Your task to perform on an android device: turn off priority inbox in the gmail app Image 0: 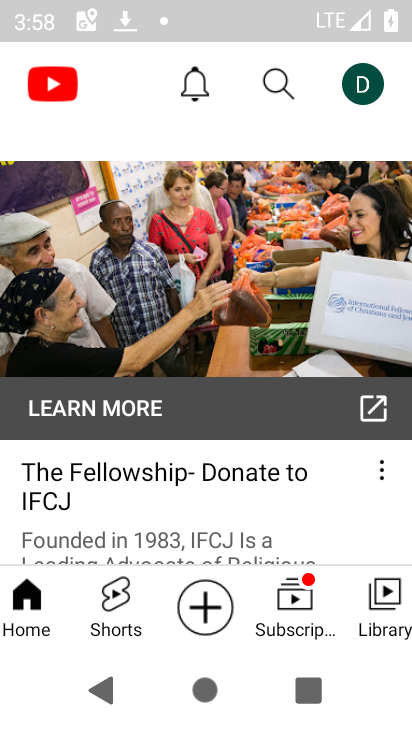
Step 0: drag from (334, 478) to (371, 133)
Your task to perform on an android device: turn off priority inbox in the gmail app Image 1: 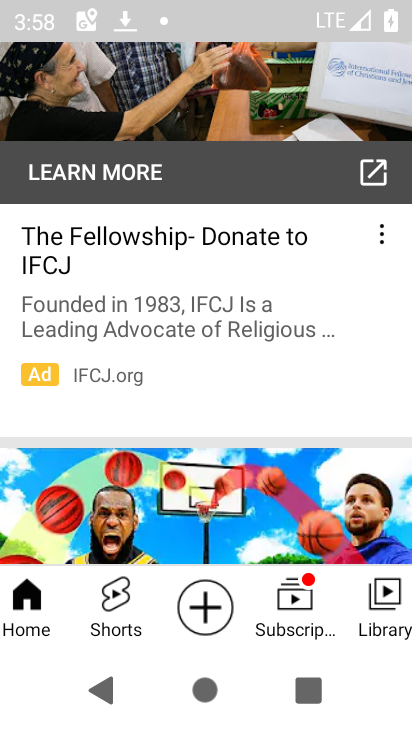
Step 1: drag from (280, 559) to (373, 170)
Your task to perform on an android device: turn off priority inbox in the gmail app Image 2: 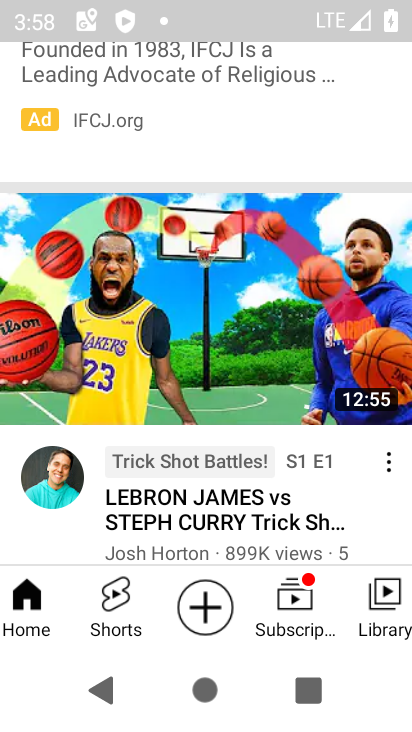
Step 2: drag from (290, 397) to (360, 64)
Your task to perform on an android device: turn off priority inbox in the gmail app Image 3: 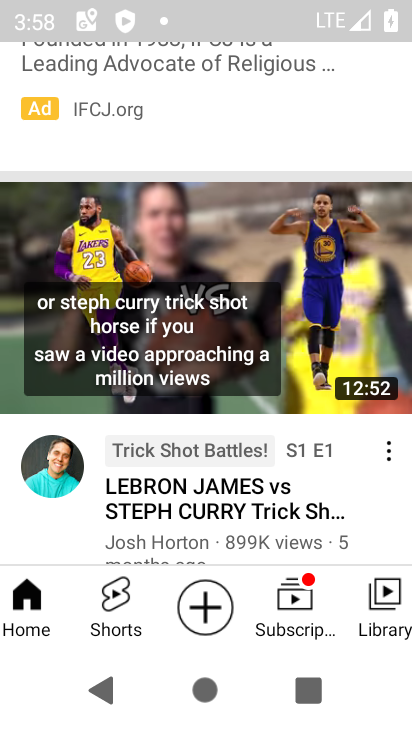
Step 3: press home button
Your task to perform on an android device: turn off priority inbox in the gmail app Image 4: 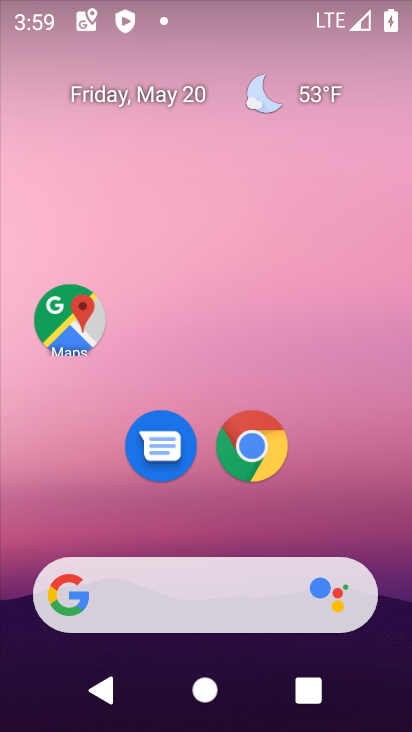
Step 4: drag from (327, 518) to (411, 3)
Your task to perform on an android device: turn off priority inbox in the gmail app Image 5: 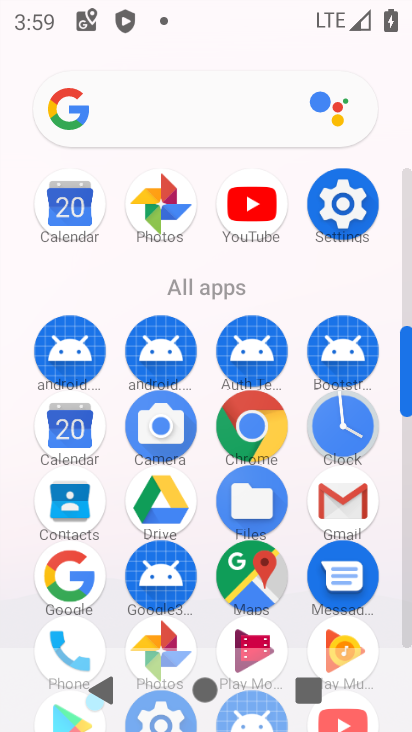
Step 5: click (332, 491)
Your task to perform on an android device: turn off priority inbox in the gmail app Image 6: 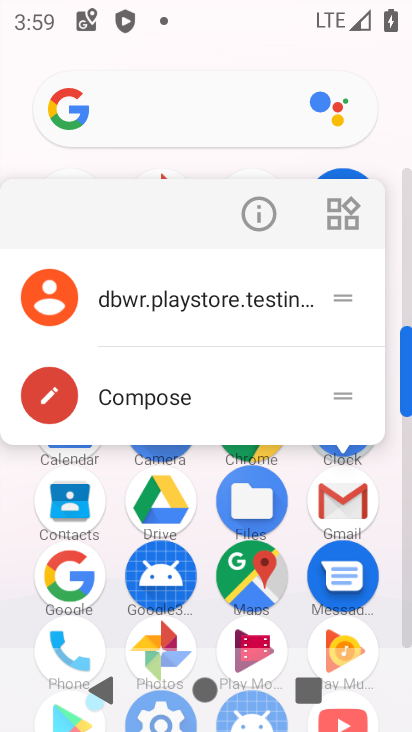
Step 6: click (329, 491)
Your task to perform on an android device: turn off priority inbox in the gmail app Image 7: 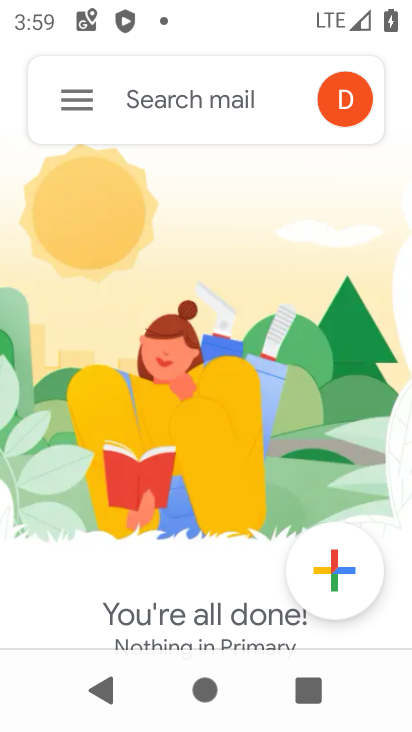
Step 7: click (56, 110)
Your task to perform on an android device: turn off priority inbox in the gmail app Image 8: 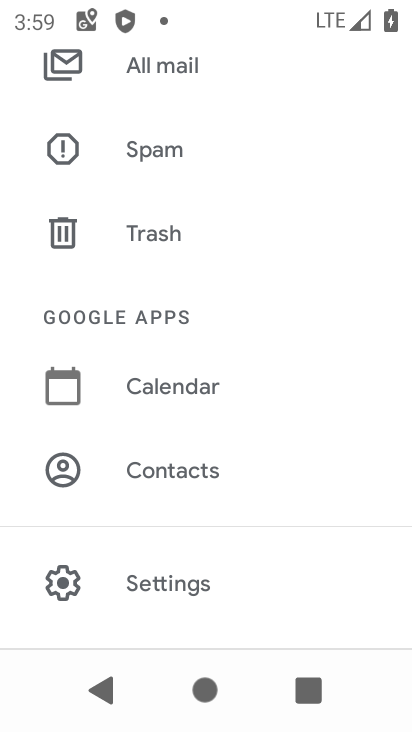
Step 8: click (169, 581)
Your task to perform on an android device: turn off priority inbox in the gmail app Image 9: 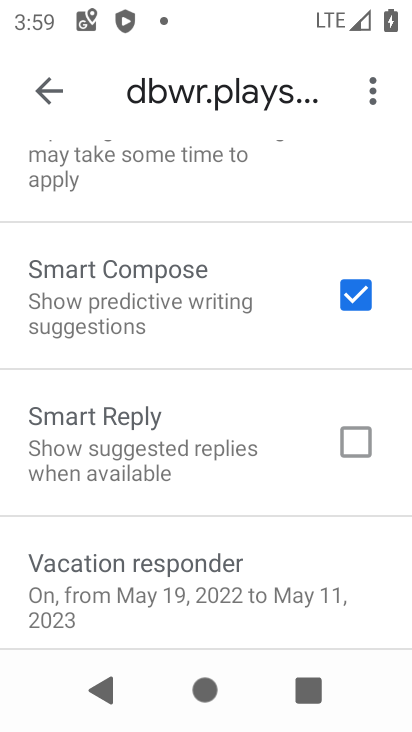
Step 9: drag from (188, 364) to (182, 628)
Your task to perform on an android device: turn off priority inbox in the gmail app Image 10: 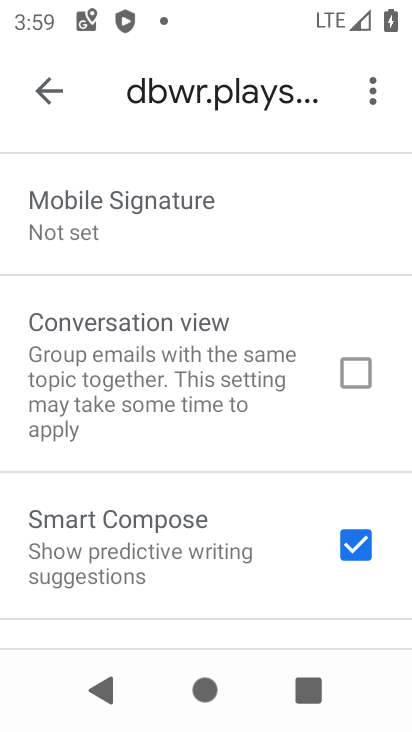
Step 10: drag from (210, 249) to (194, 620)
Your task to perform on an android device: turn off priority inbox in the gmail app Image 11: 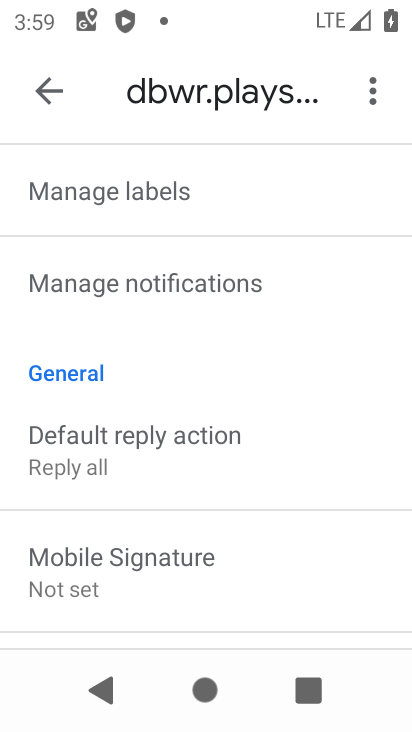
Step 11: drag from (187, 209) to (189, 617)
Your task to perform on an android device: turn off priority inbox in the gmail app Image 12: 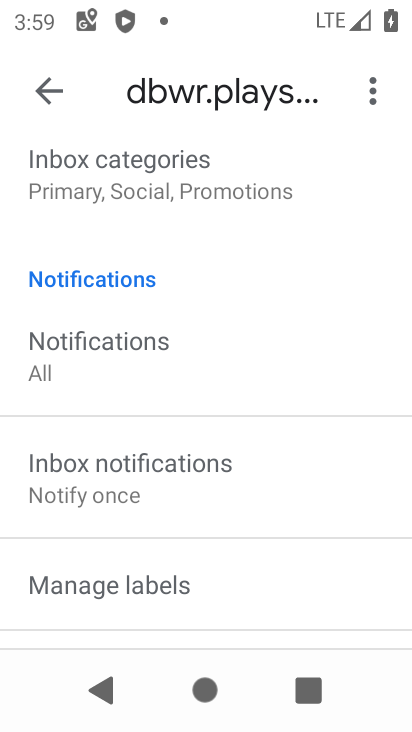
Step 12: drag from (149, 185) to (156, 577)
Your task to perform on an android device: turn off priority inbox in the gmail app Image 13: 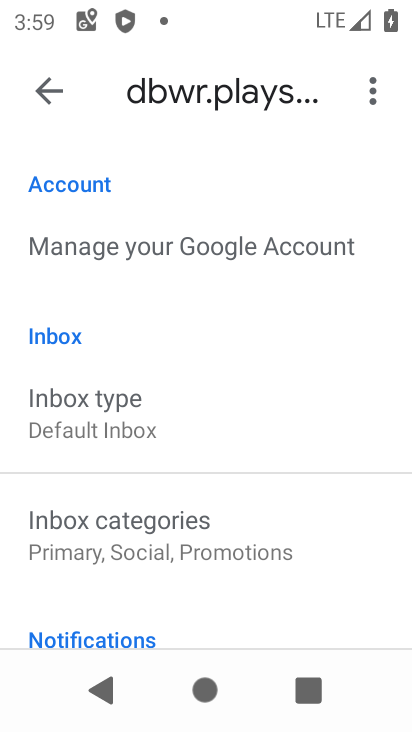
Step 13: click (75, 411)
Your task to perform on an android device: turn off priority inbox in the gmail app Image 14: 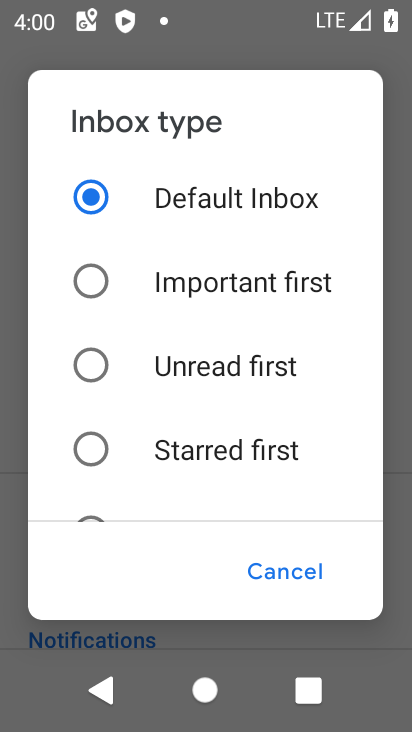
Step 14: task complete